Your task to perform on an android device: install app "Adobe Express: Graphic Design" Image 0: 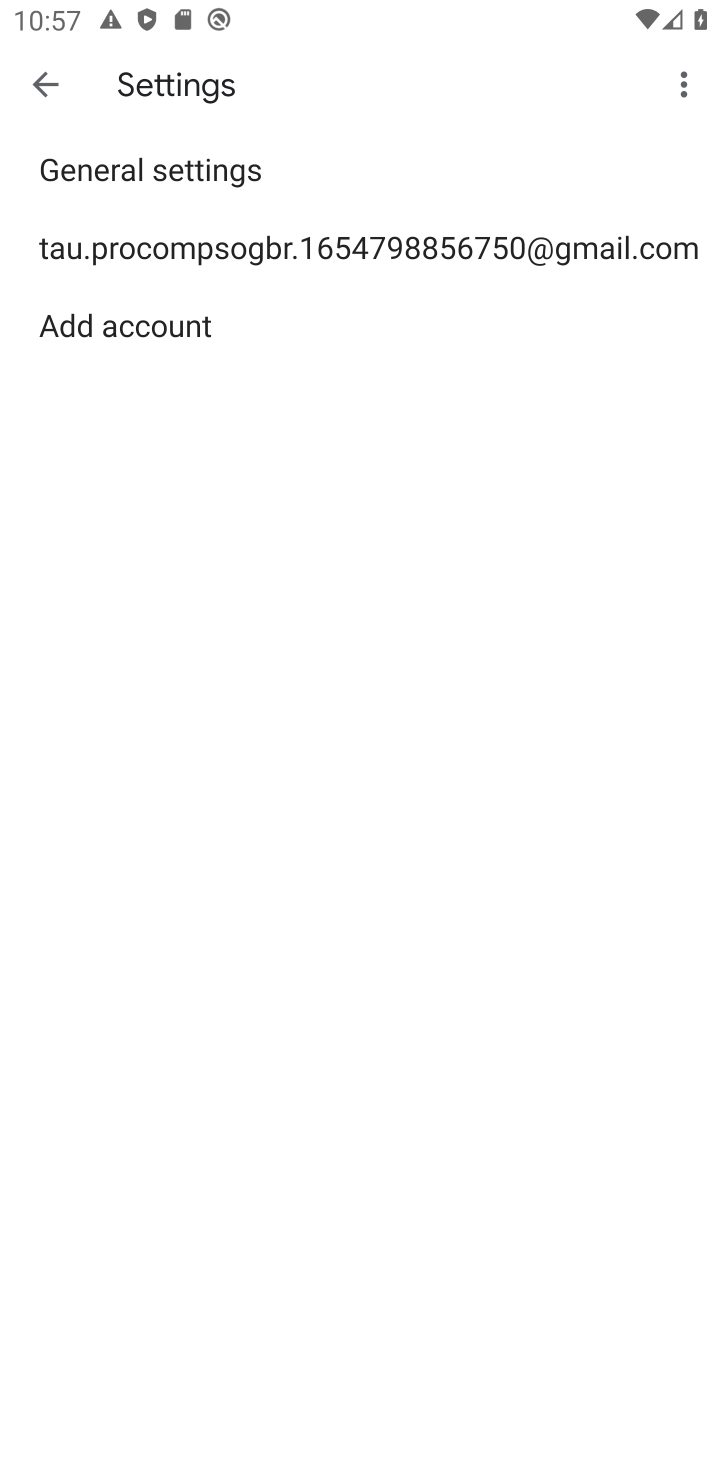
Step 0: press home button
Your task to perform on an android device: install app "Adobe Express: Graphic Design" Image 1: 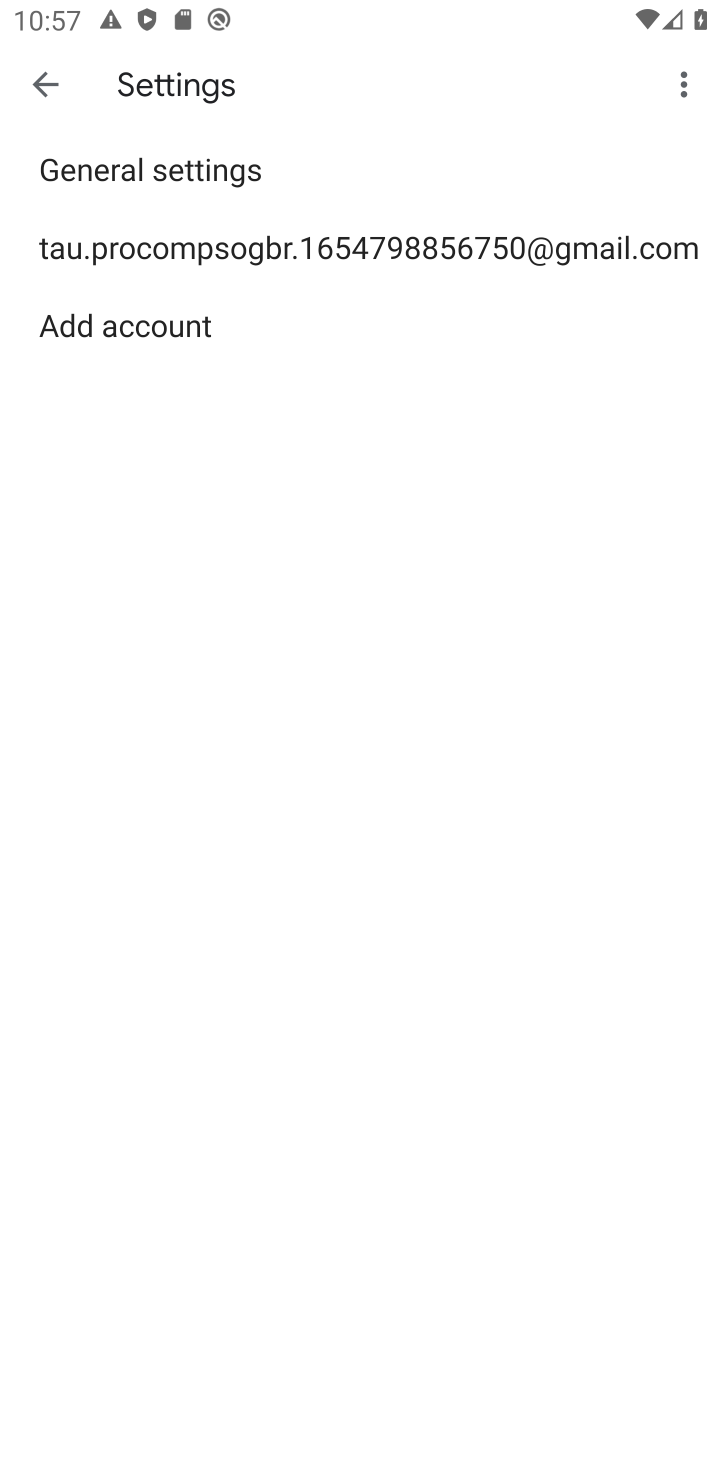
Step 1: press home button
Your task to perform on an android device: install app "Adobe Express: Graphic Design" Image 2: 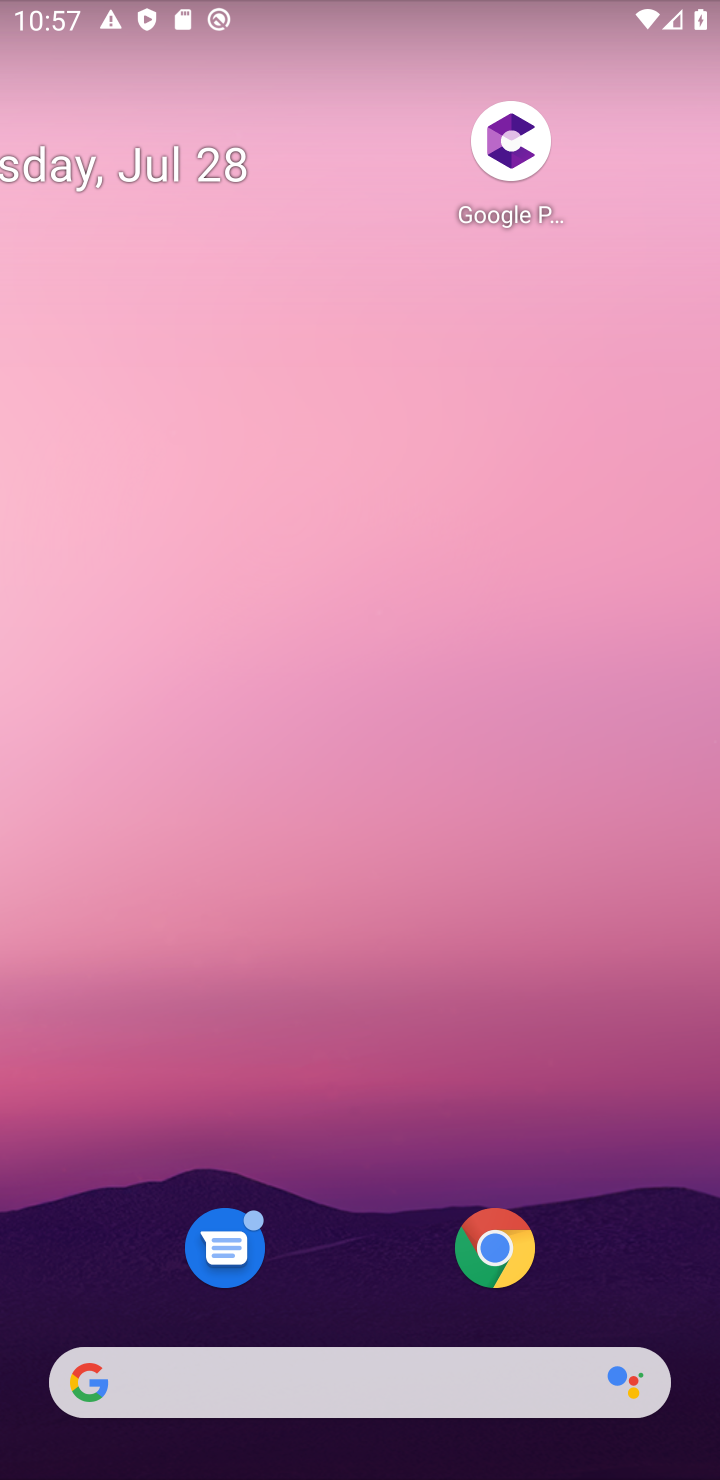
Step 2: press home button
Your task to perform on an android device: install app "Adobe Express: Graphic Design" Image 3: 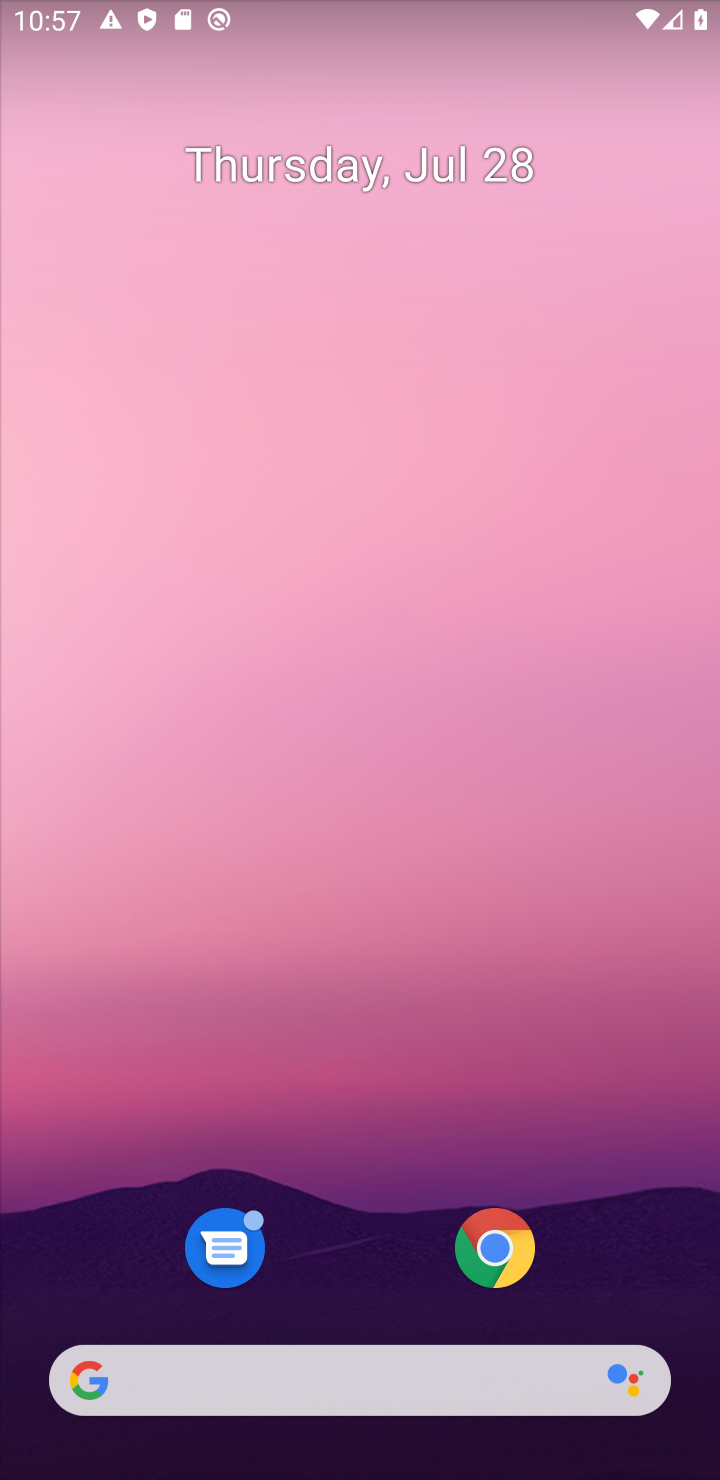
Step 3: press home button
Your task to perform on an android device: install app "Adobe Express: Graphic Design" Image 4: 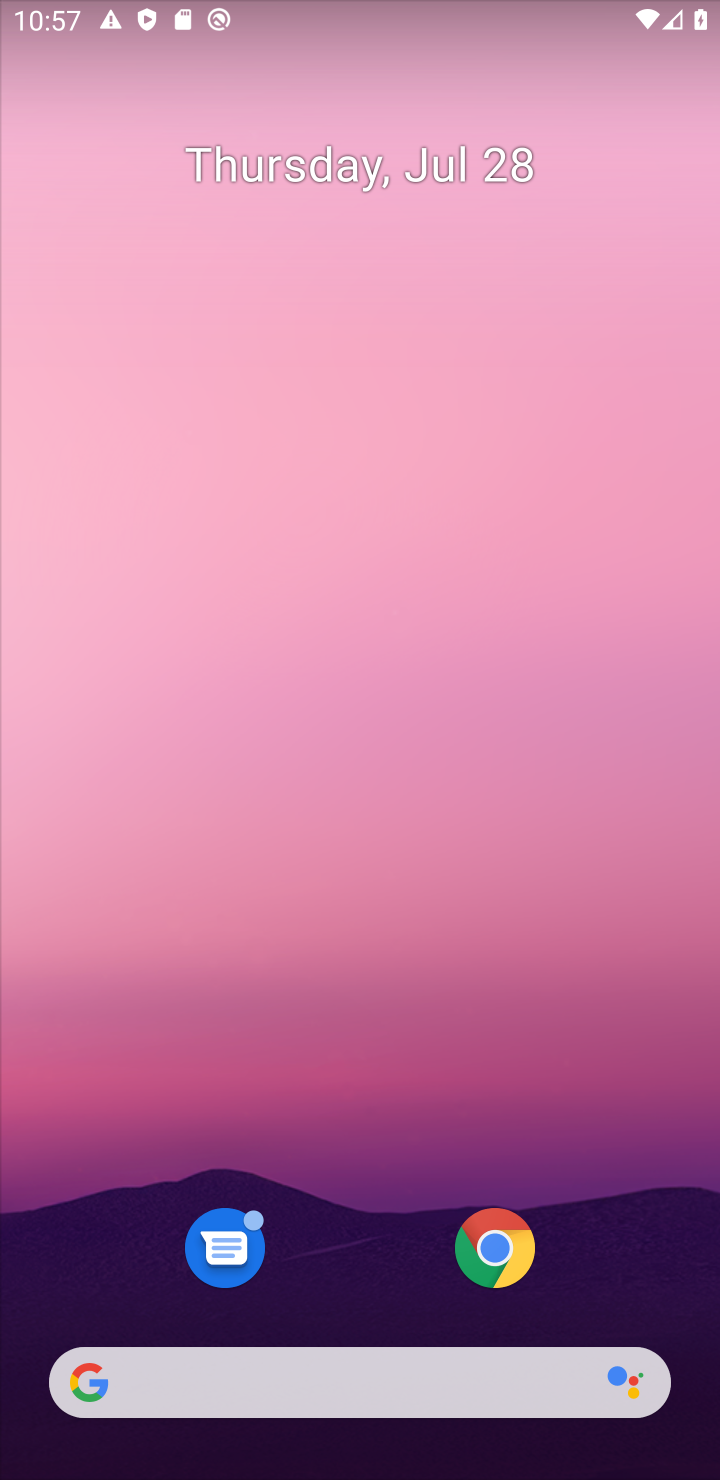
Step 4: drag from (383, 1219) to (711, 88)
Your task to perform on an android device: install app "Adobe Express: Graphic Design" Image 5: 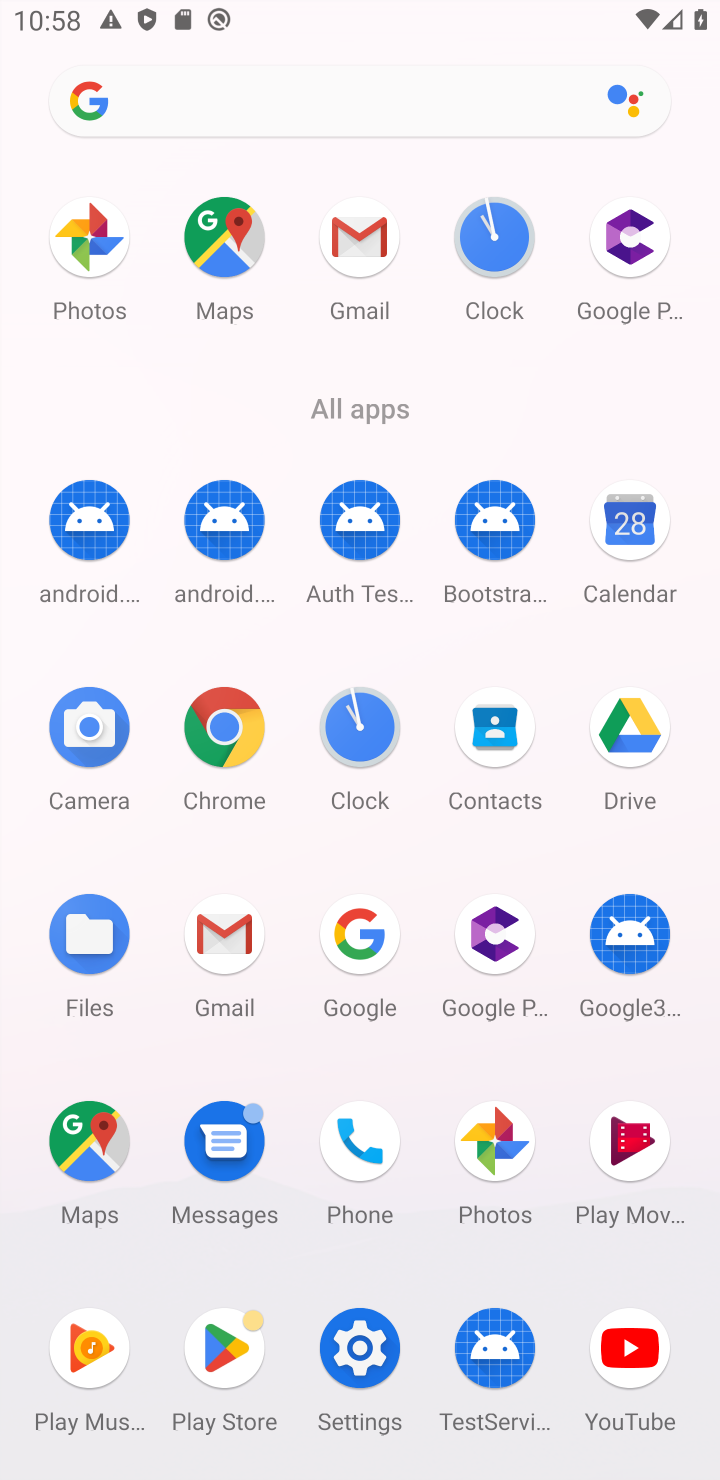
Step 5: click (239, 1345)
Your task to perform on an android device: install app "Adobe Express: Graphic Design" Image 6: 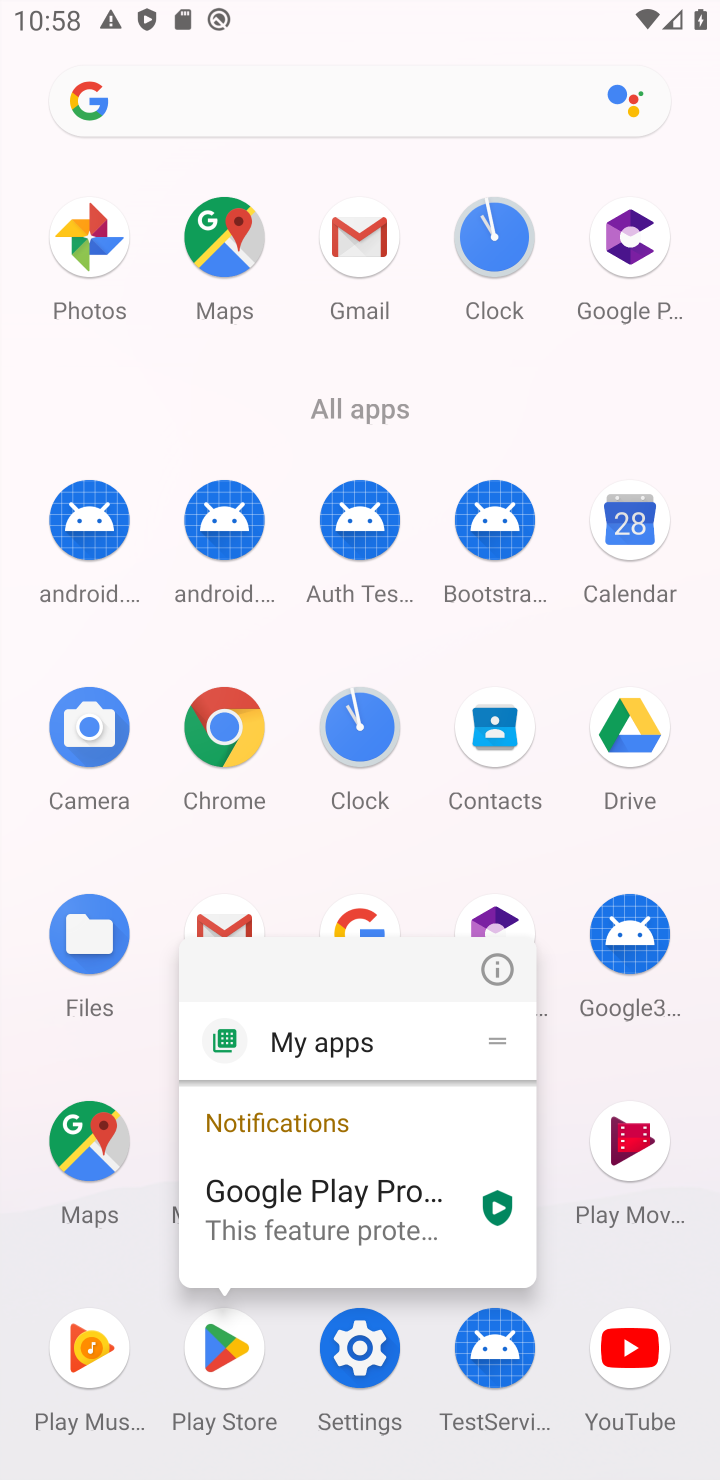
Step 6: click (211, 1378)
Your task to perform on an android device: install app "Adobe Express: Graphic Design" Image 7: 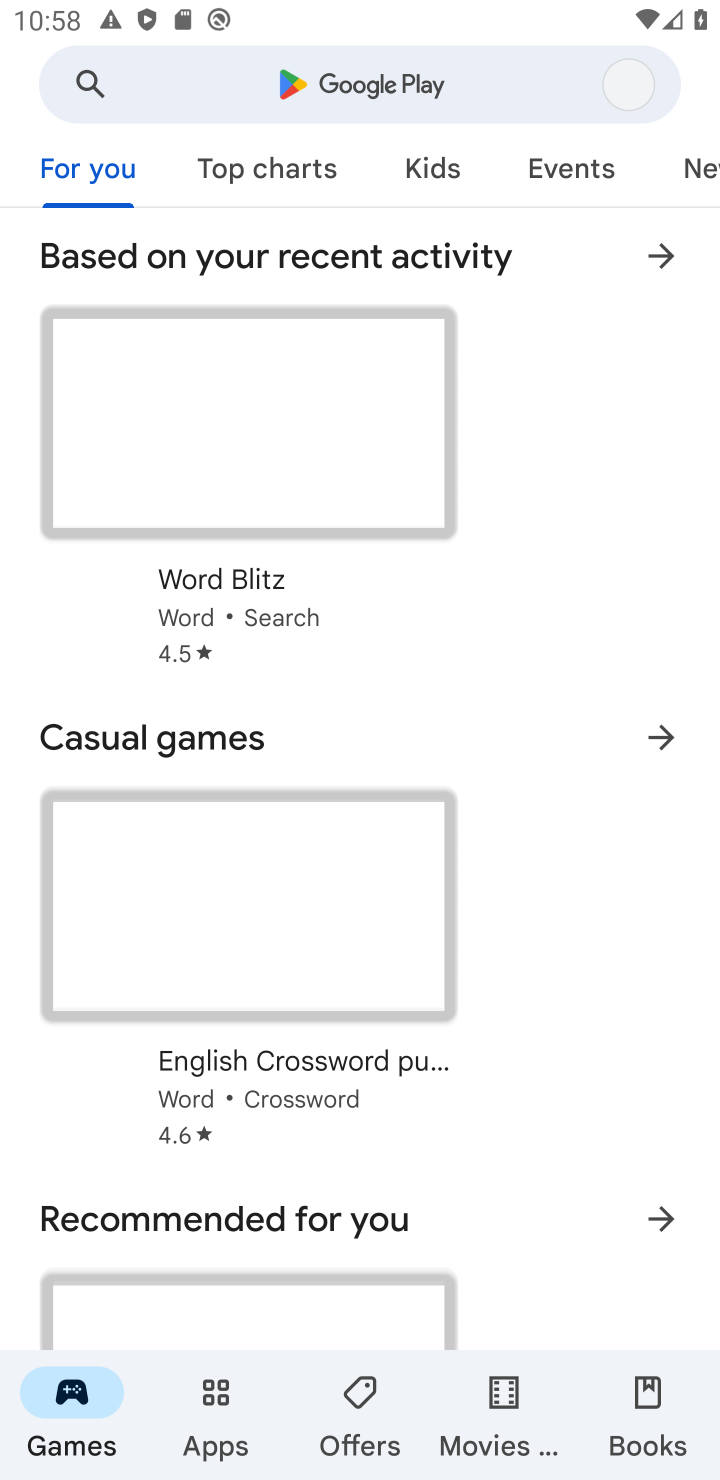
Step 7: click (439, 90)
Your task to perform on an android device: install app "Adobe Express: Graphic Design" Image 8: 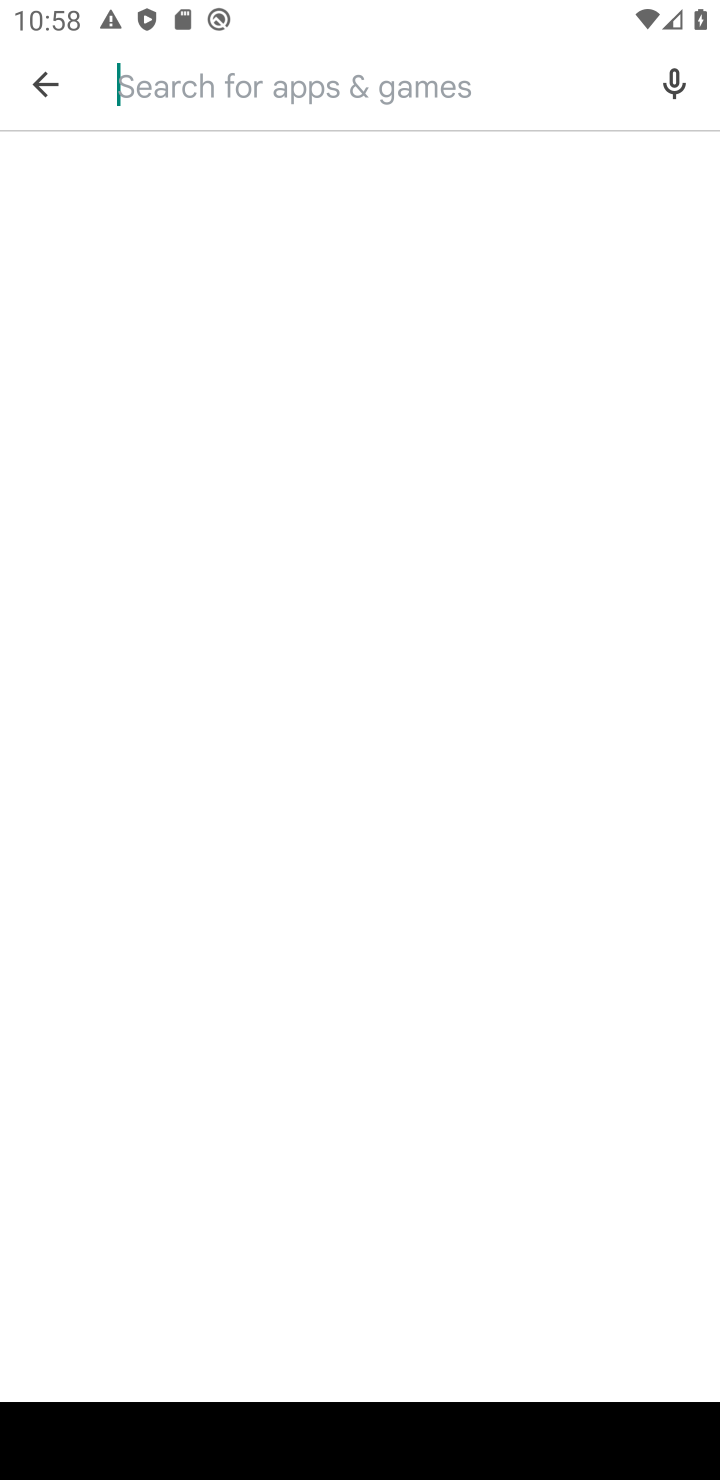
Step 8: type "Adobe Express: Graphic Design"
Your task to perform on an android device: install app "Adobe Express: Graphic Design" Image 9: 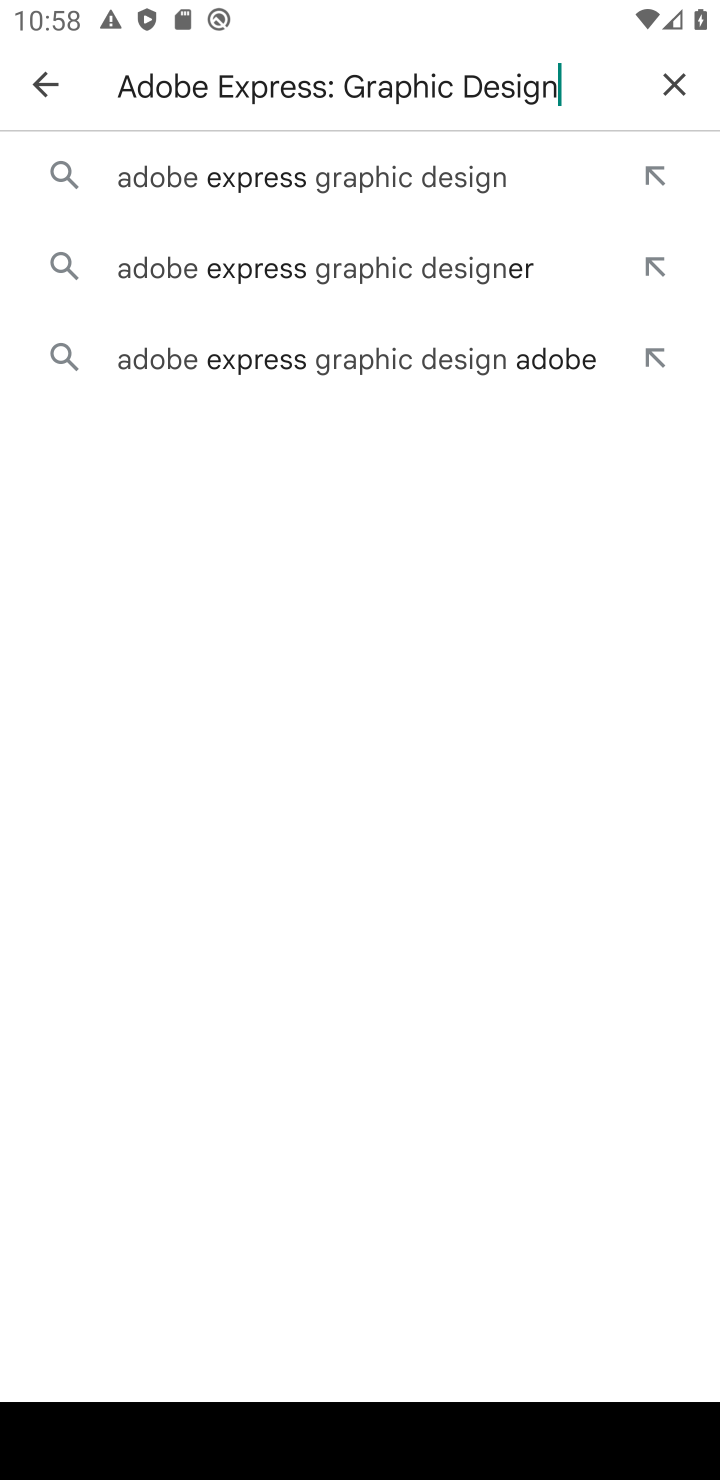
Step 9: click (403, 170)
Your task to perform on an android device: install app "Adobe Express: Graphic Design" Image 10: 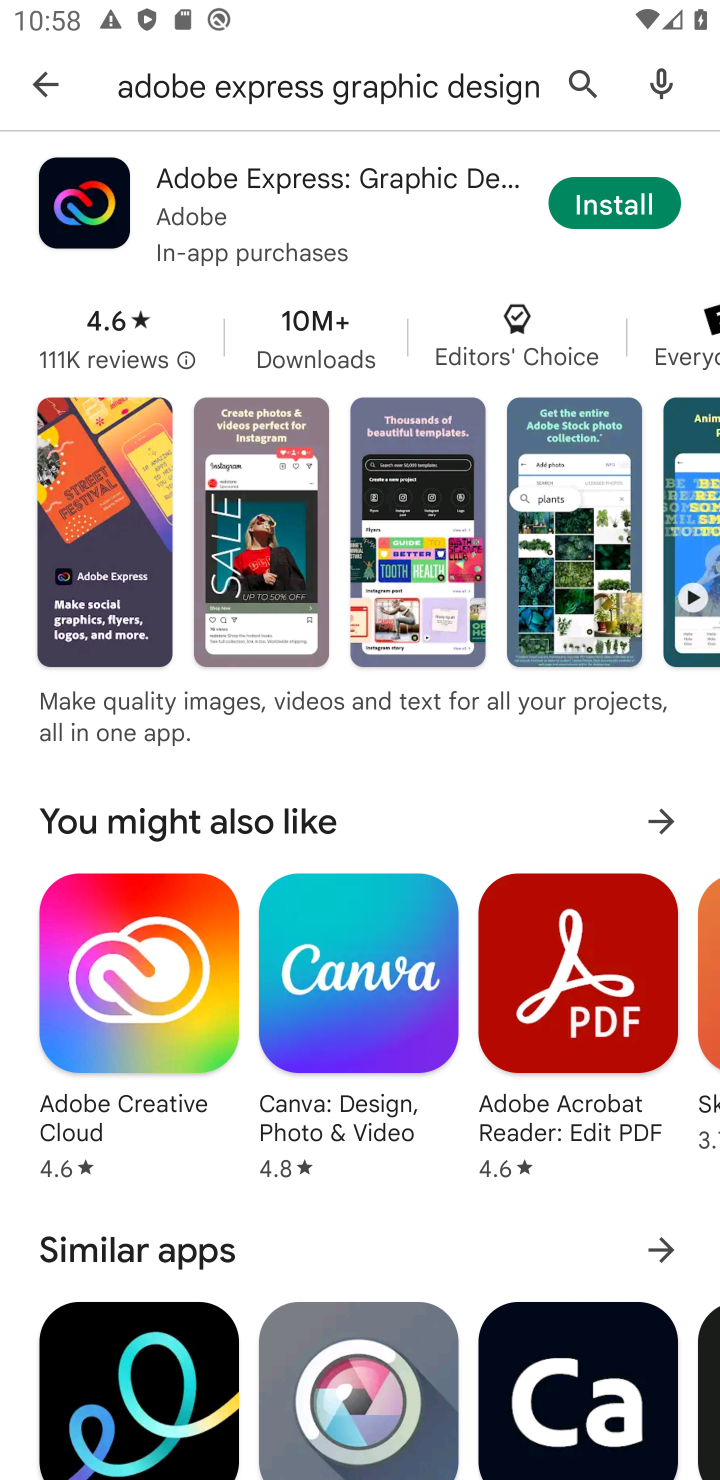
Step 10: click (628, 205)
Your task to perform on an android device: install app "Adobe Express: Graphic Design" Image 11: 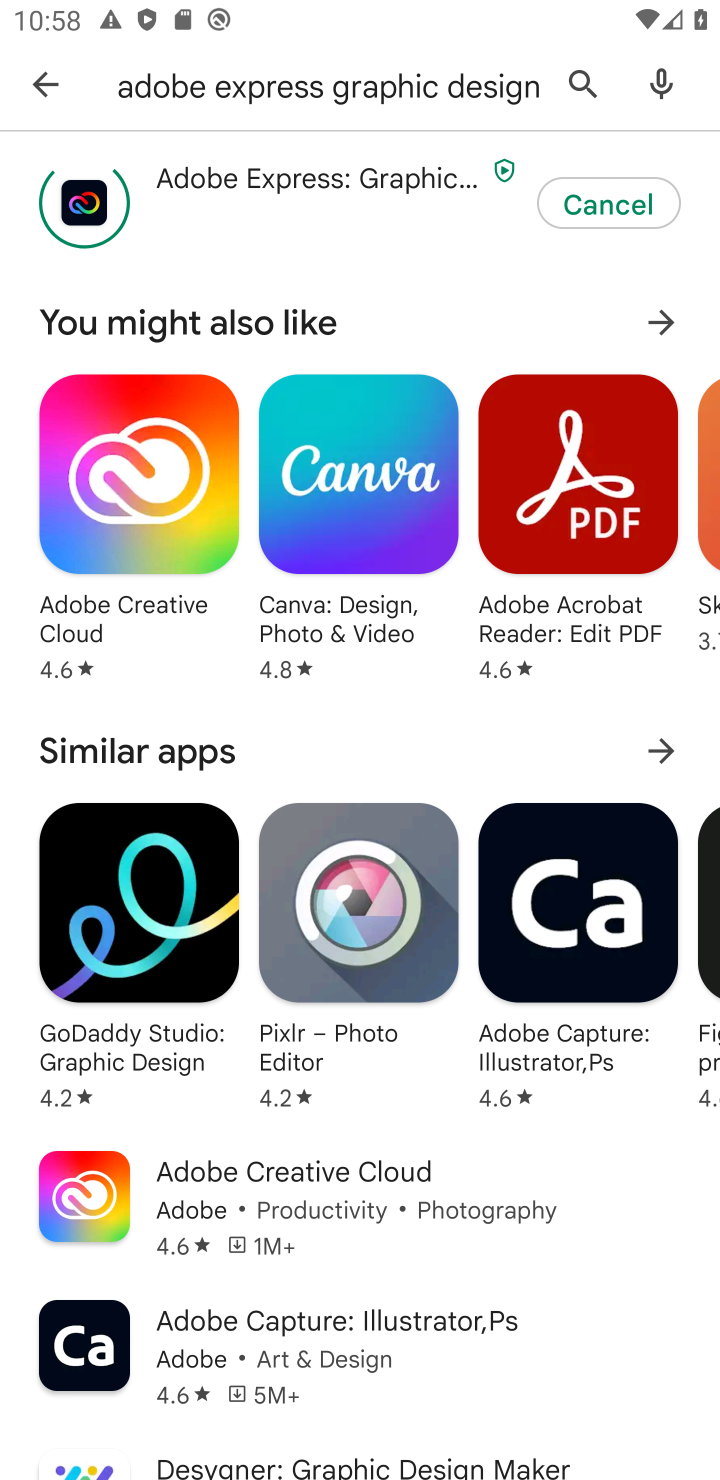
Step 11: click (203, 193)
Your task to perform on an android device: install app "Adobe Express: Graphic Design" Image 12: 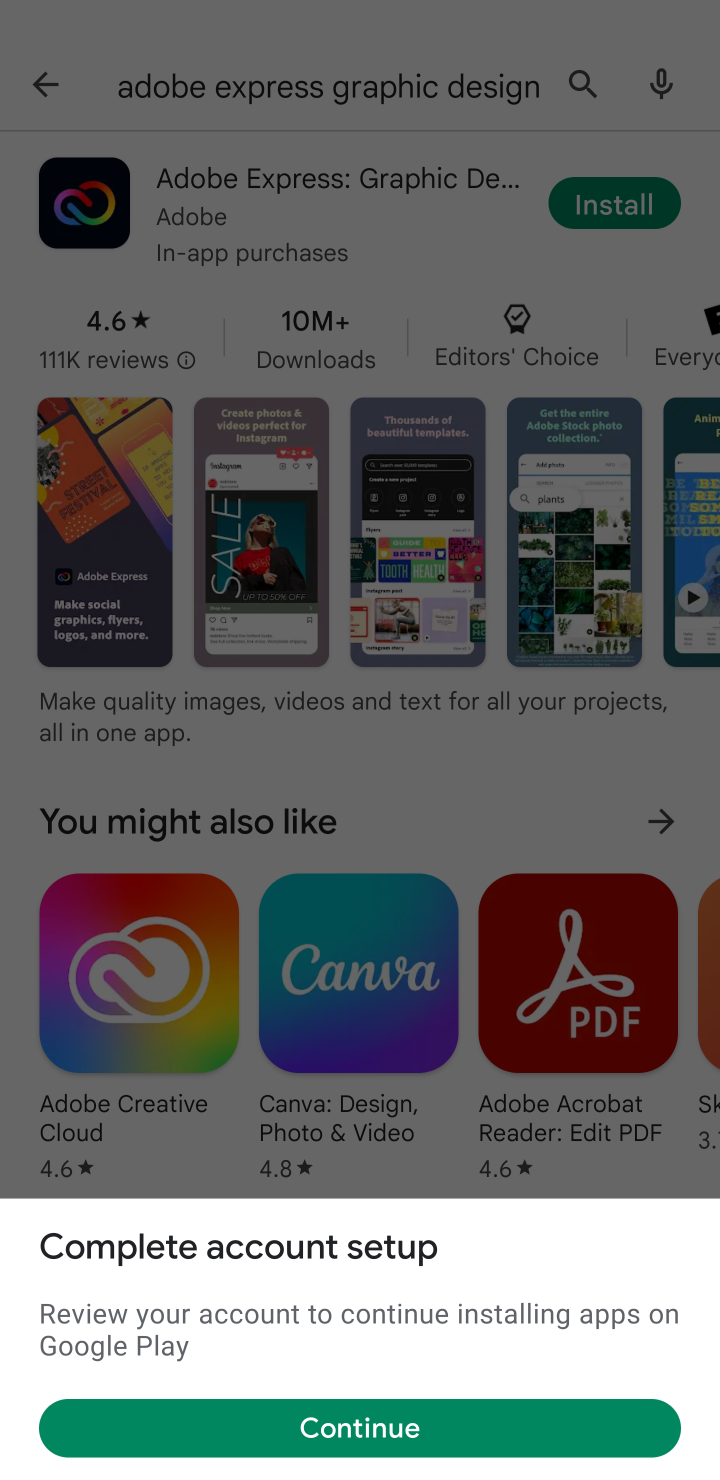
Step 12: click (253, 1428)
Your task to perform on an android device: install app "Adobe Express: Graphic Design" Image 13: 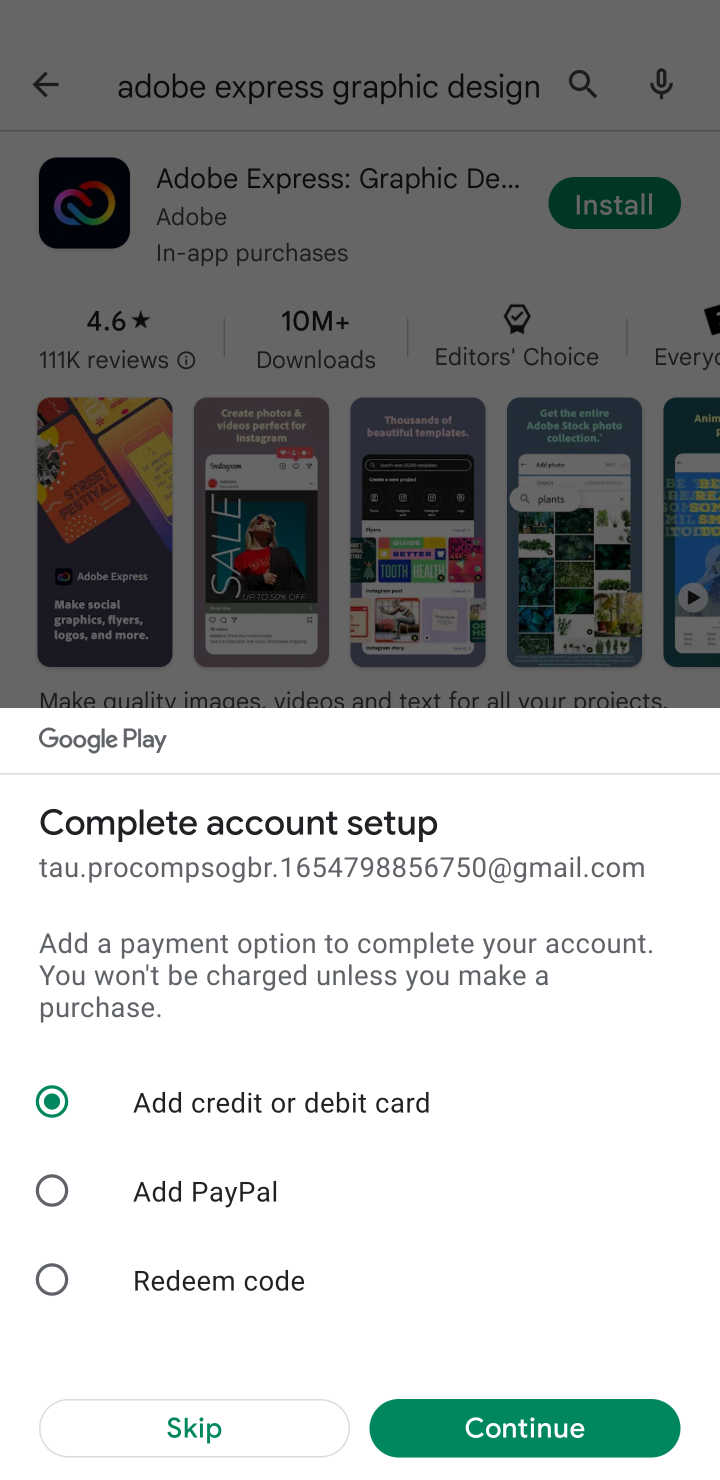
Step 13: click (253, 1428)
Your task to perform on an android device: install app "Adobe Express: Graphic Design" Image 14: 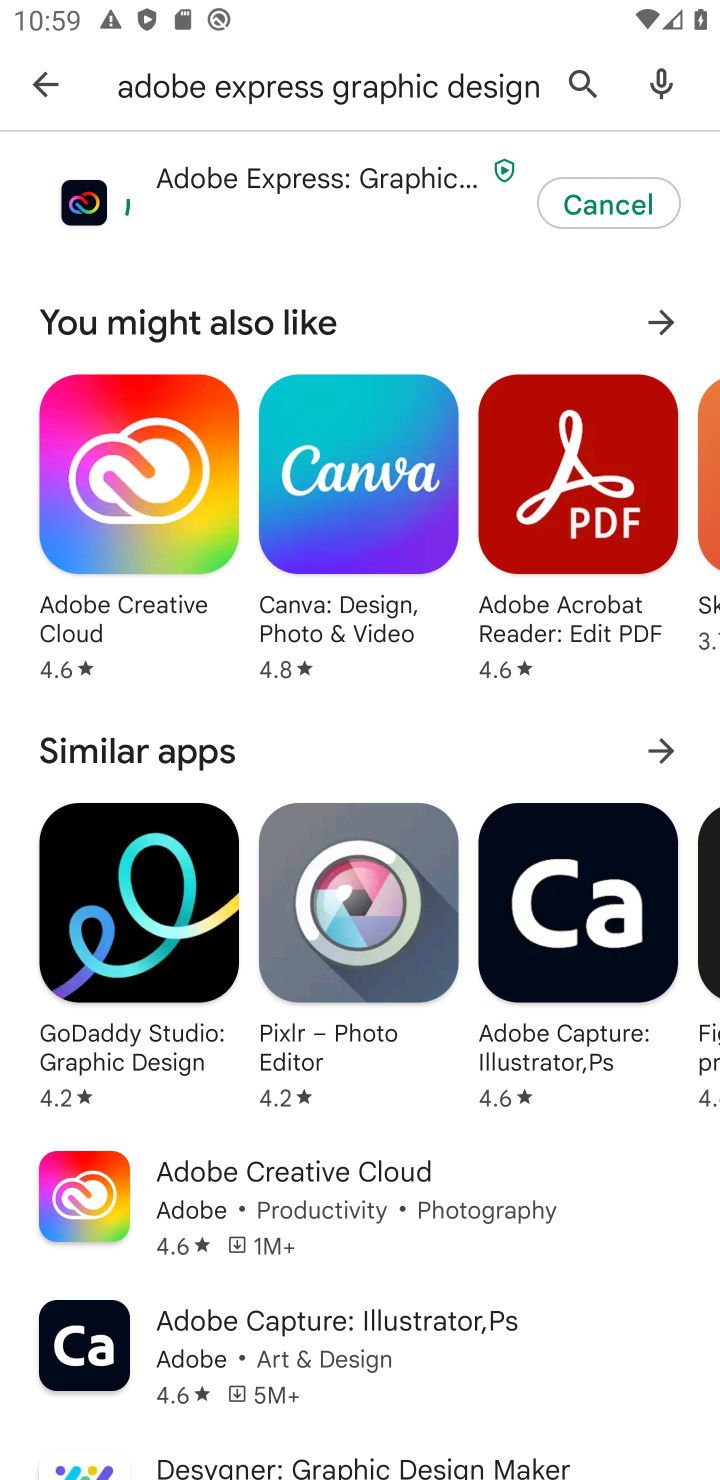
Step 14: click (210, 191)
Your task to perform on an android device: install app "Adobe Express: Graphic Design" Image 15: 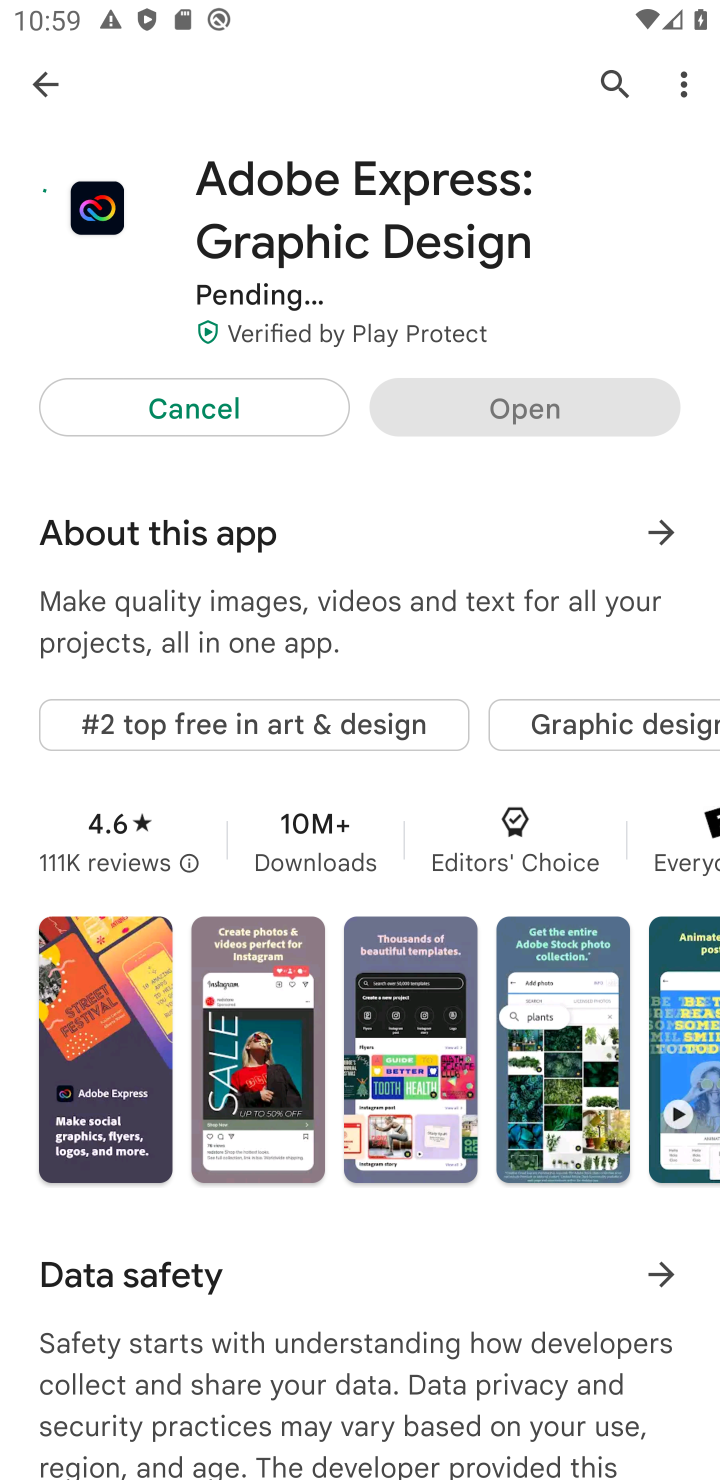
Step 15: drag from (509, 1134) to (45, 1080)
Your task to perform on an android device: install app "Adobe Express: Graphic Design" Image 16: 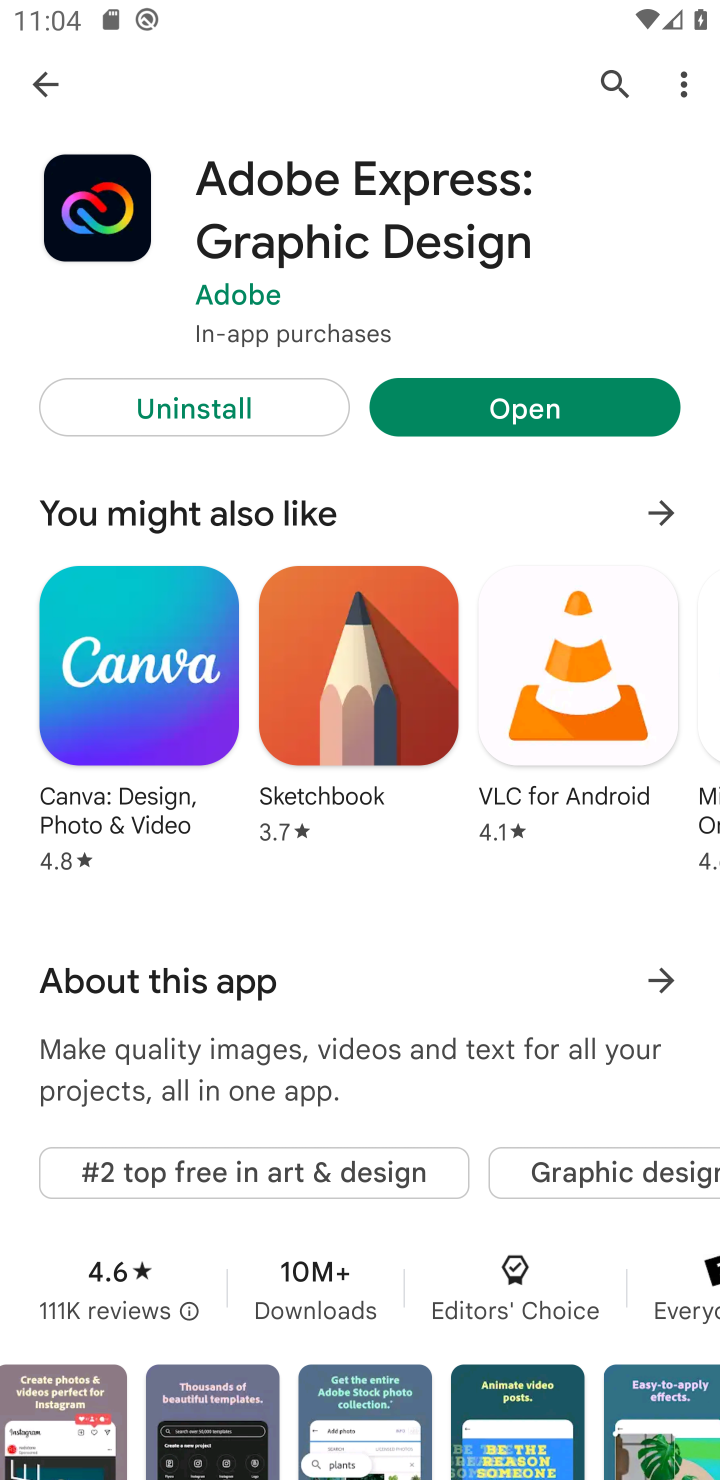
Step 16: click (372, 331)
Your task to perform on an android device: install app "Adobe Express: Graphic Design" Image 17: 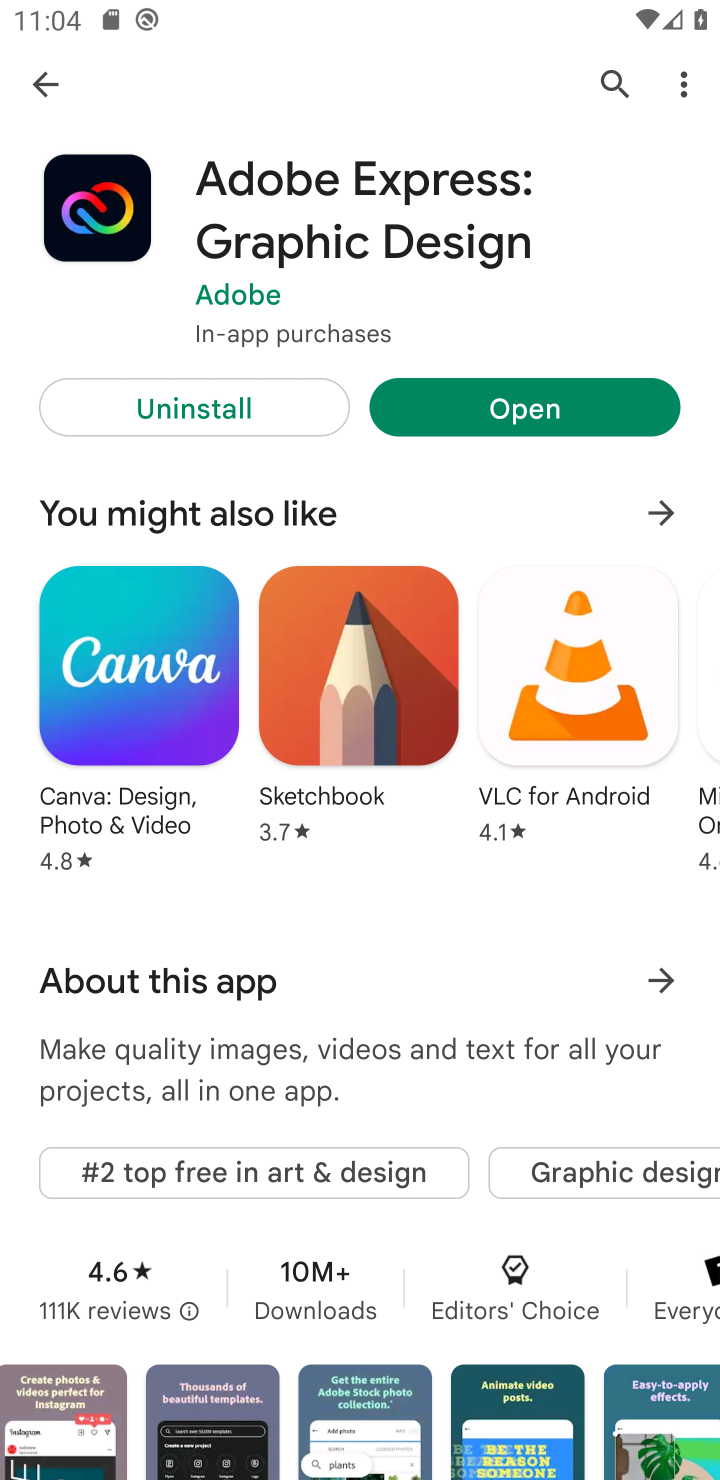
Step 17: click (430, 388)
Your task to perform on an android device: install app "Adobe Express: Graphic Design" Image 18: 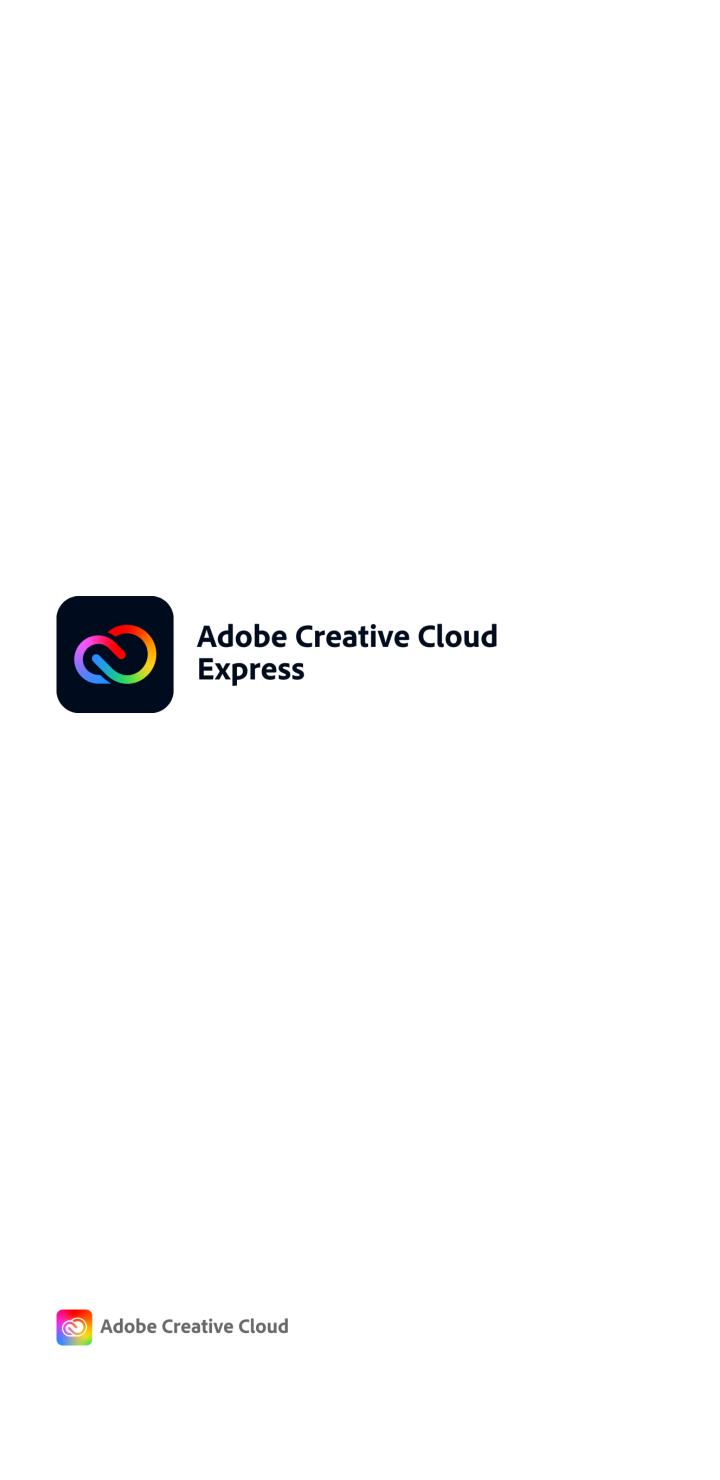
Step 18: task complete